Your task to perform on an android device: Search for a good pizza place on Maps Image 0: 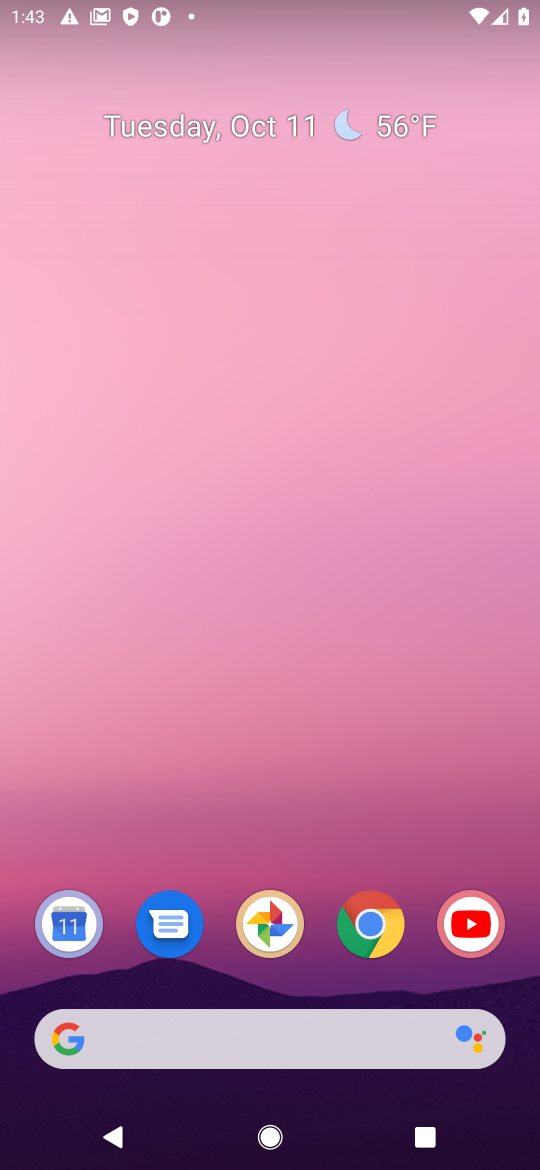
Step 0: drag from (314, 994) to (217, 50)
Your task to perform on an android device: Search for a good pizza place on Maps Image 1: 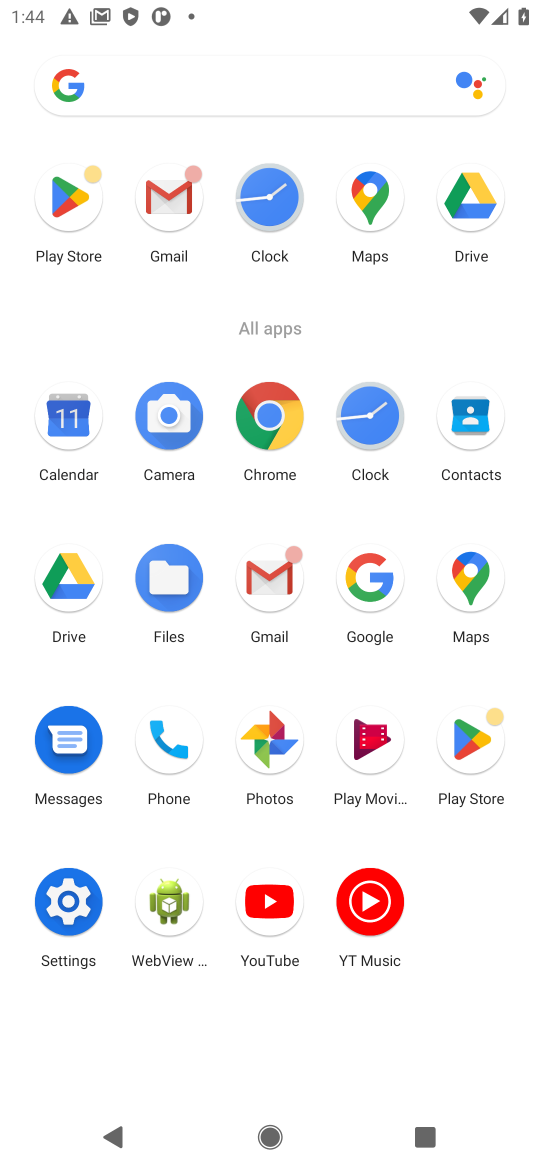
Step 1: click (279, 415)
Your task to perform on an android device: Search for a good pizza place on Maps Image 2: 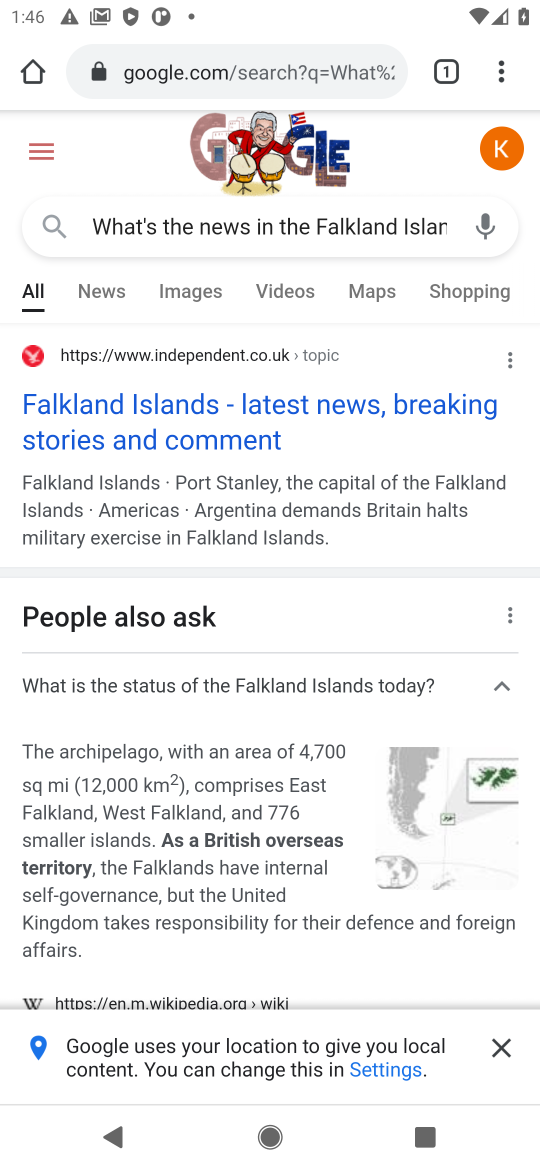
Step 2: press home button
Your task to perform on an android device: Search for a good pizza place on Maps Image 3: 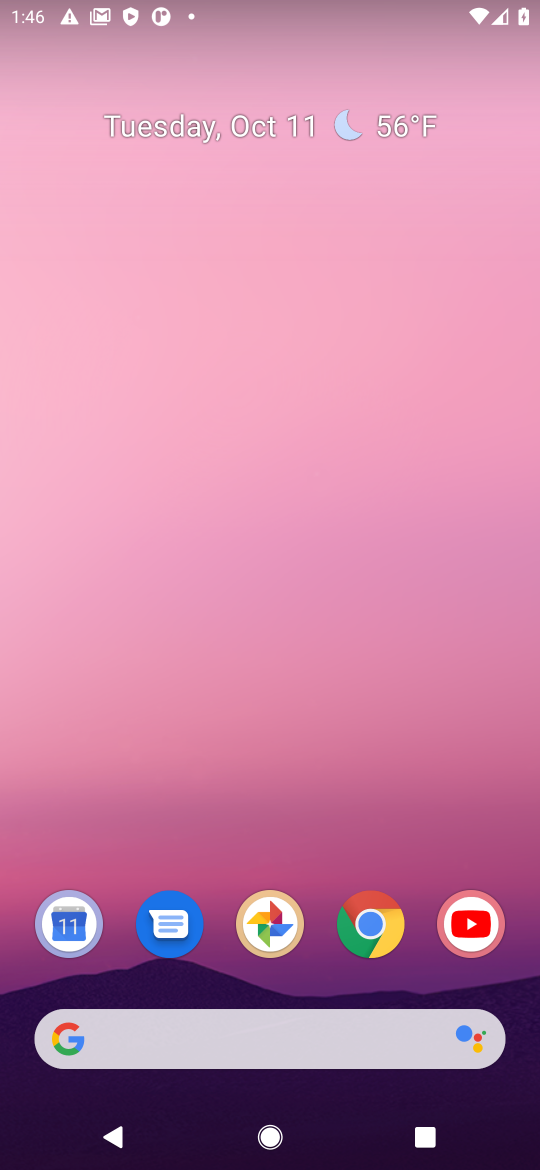
Step 3: drag from (334, 1006) to (251, 86)
Your task to perform on an android device: Search for a good pizza place on Maps Image 4: 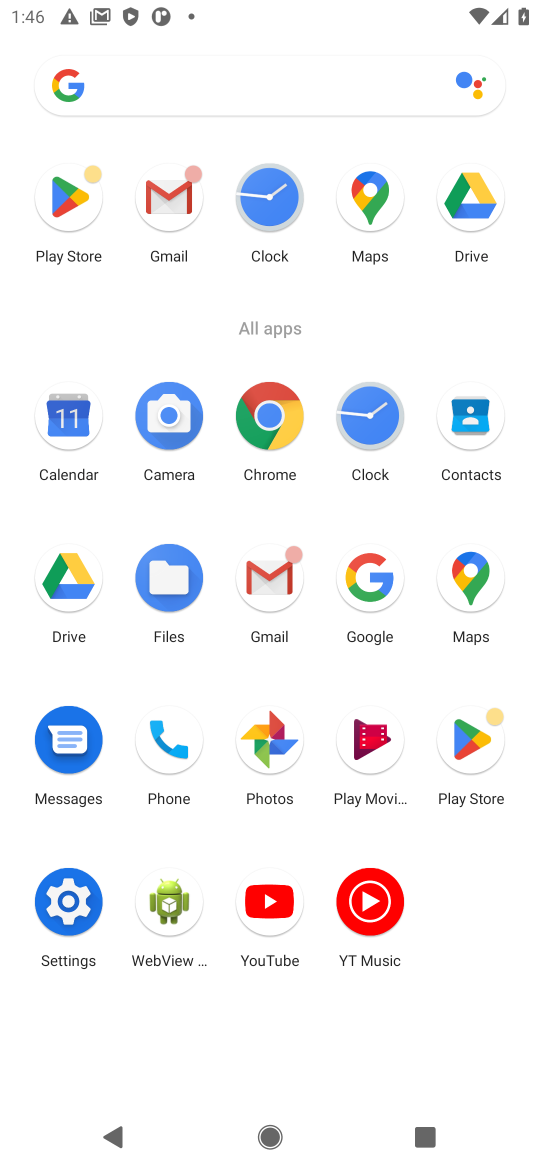
Step 4: click (475, 576)
Your task to perform on an android device: Search for a good pizza place on Maps Image 5: 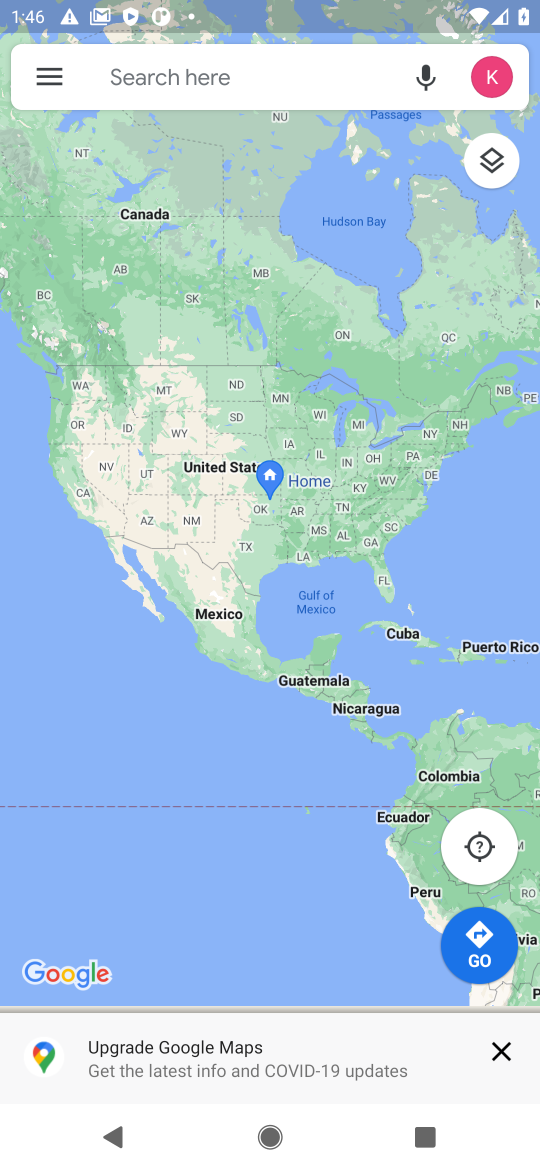
Step 5: click (152, 97)
Your task to perform on an android device: Search for a good pizza place on Maps Image 6: 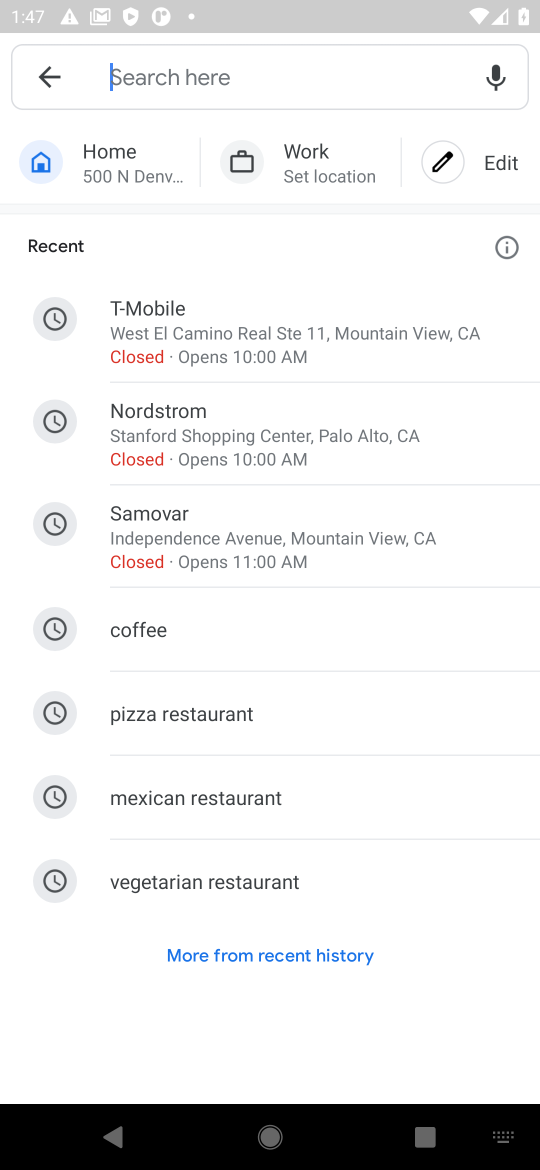
Step 6: type "good pizza place"
Your task to perform on an android device: Search for a good pizza place on Maps Image 7: 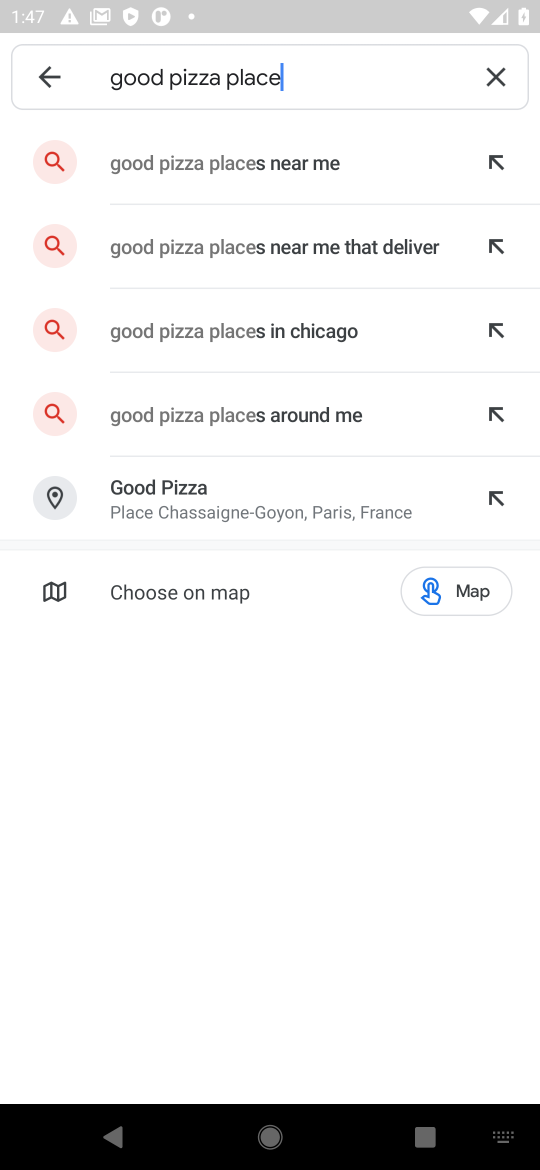
Step 7: type ""
Your task to perform on an android device: Search for a good pizza place on Maps Image 8: 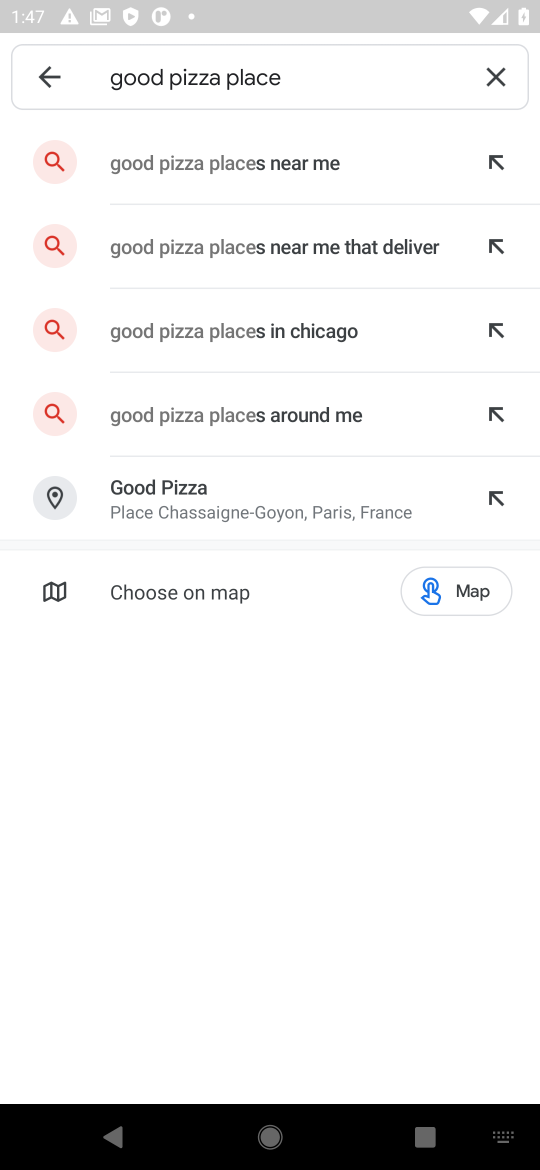
Step 8: click (248, 163)
Your task to perform on an android device: Search for a good pizza place on Maps Image 9: 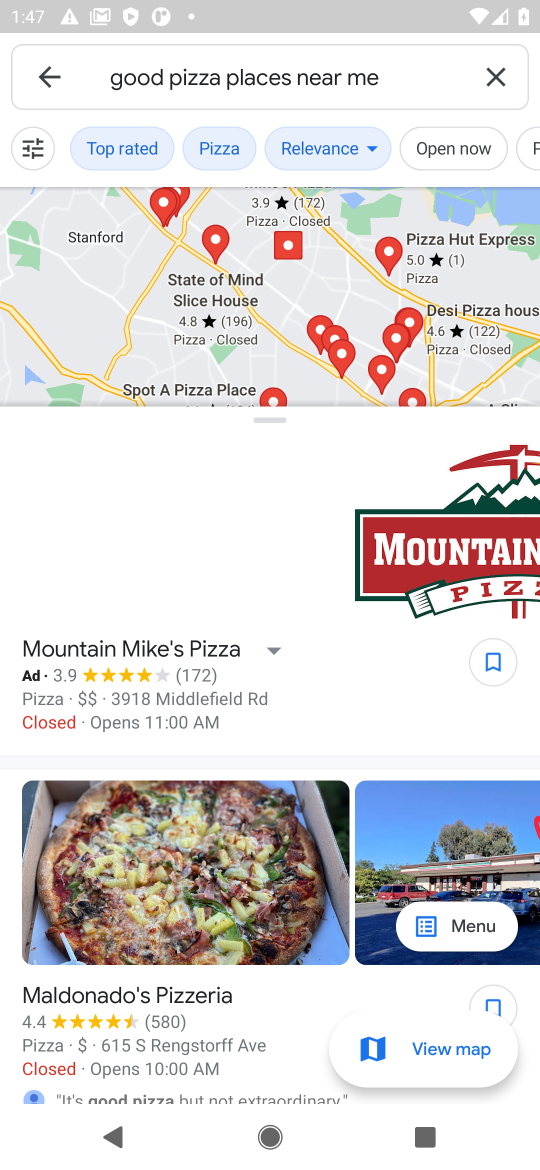
Step 9: task complete